Your task to perform on an android device: change the clock display to digital Image 0: 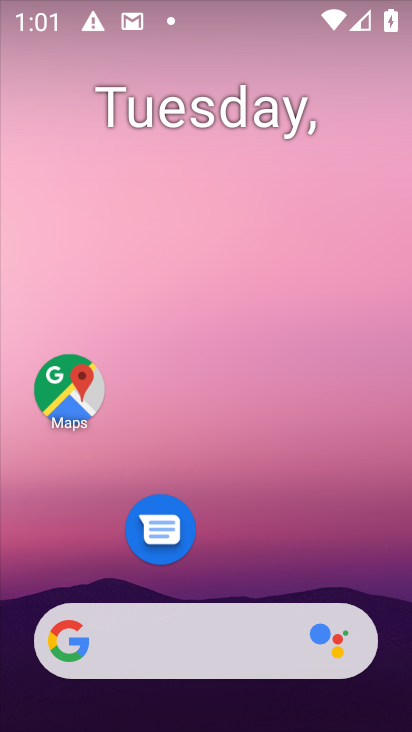
Step 0: drag from (291, 600) to (302, 101)
Your task to perform on an android device: change the clock display to digital Image 1: 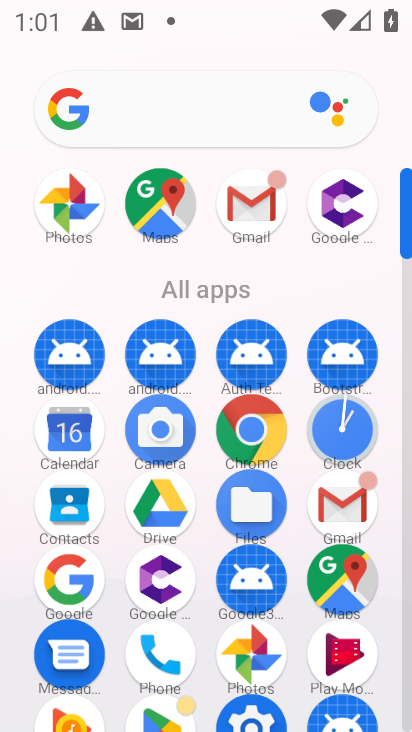
Step 1: click (246, 709)
Your task to perform on an android device: change the clock display to digital Image 2: 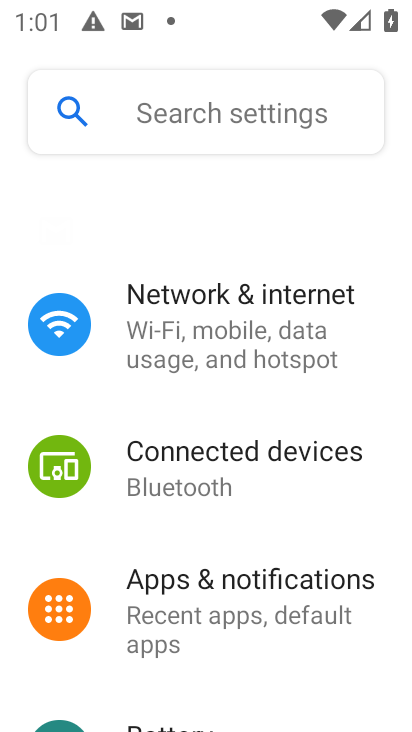
Step 2: task complete